Your task to perform on an android device: set default search engine in the chrome app Image 0: 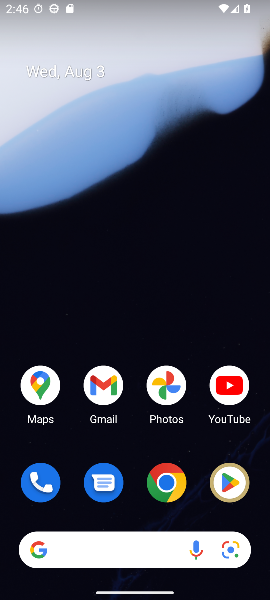
Step 0: click (166, 489)
Your task to perform on an android device: set default search engine in the chrome app Image 1: 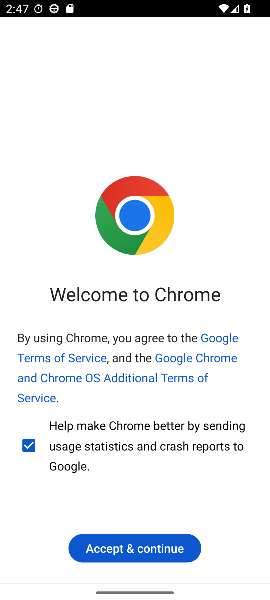
Step 1: click (146, 548)
Your task to perform on an android device: set default search engine in the chrome app Image 2: 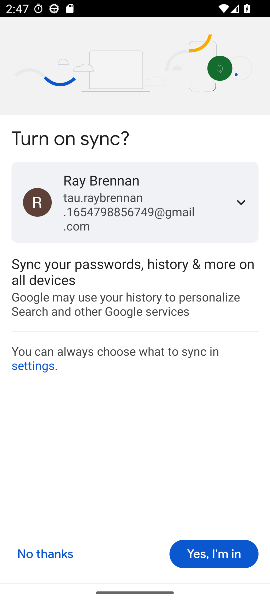
Step 2: click (195, 546)
Your task to perform on an android device: set default search engine in the chrome app Image 3: 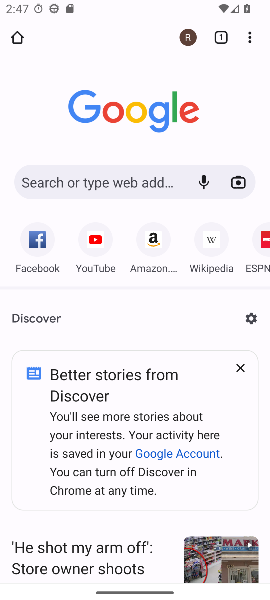
Step 3: drag from (247, 35) to (156, 338)
Your task to perform on an android device: set default search engine in the chrome app Image 4: 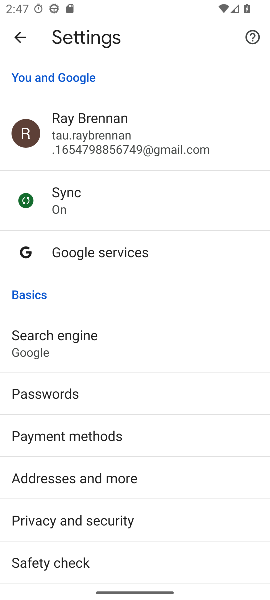
Step 4: drag from (140, 383) to (193, 191)
Your task to perform on an android device: set default search engine in the chrome app Image 5: 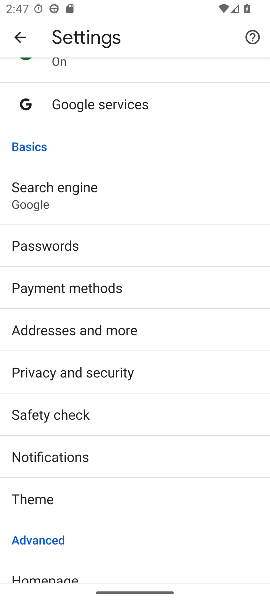
Step 5: click (34, 200)
Your task to perform on an android device: set default search engine in the chrome app Image 6: 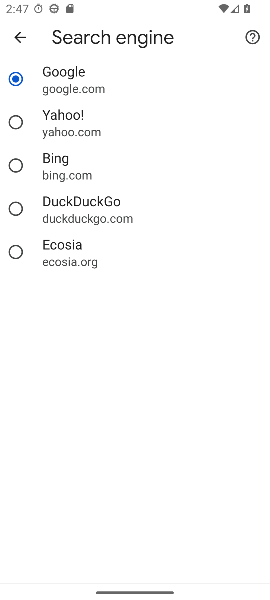
Step 6: click (14, 120)
Your task to perform on an android device: set default search engine in the chrome app Image 7: 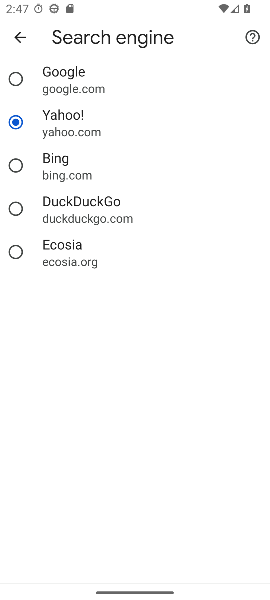
Step 7: task complete